Your task to perform on an android device: clear history in the chrome app Image 0: 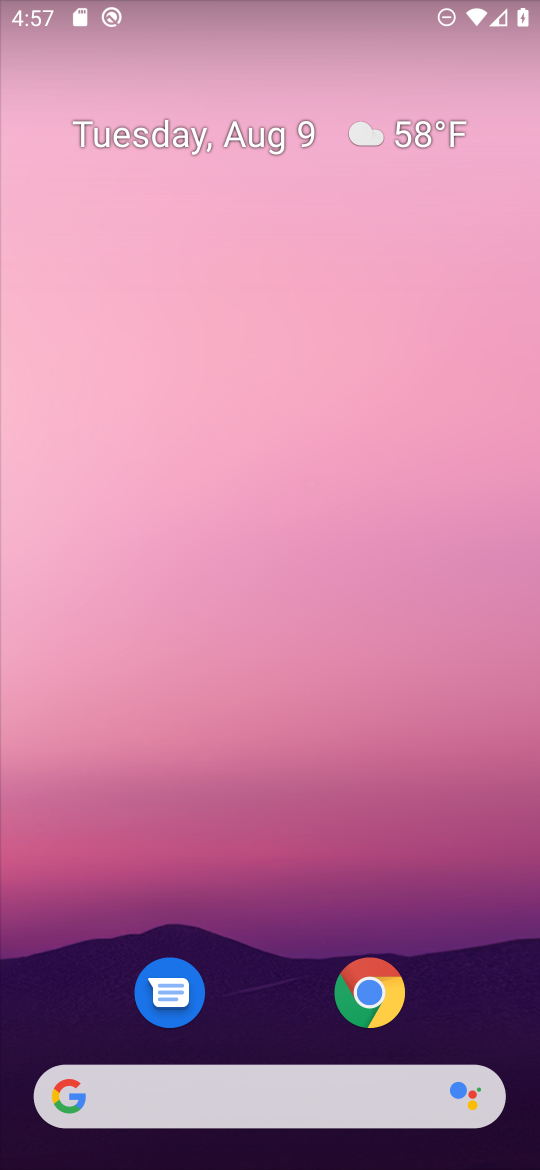
Step 0: drag from (406, 1088) to (259, 47)
Your task to perform on an android device: clear history in the chrome app Image 1: 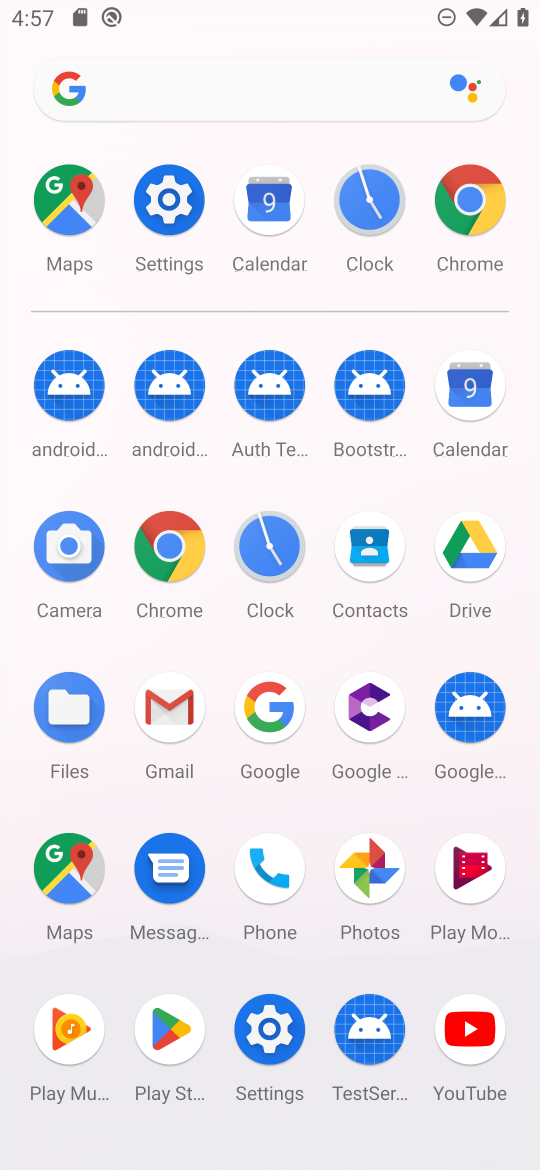
Step 1: click (166, 523)
Your task to perform on an android device: clear history in the chrome app Image 2: 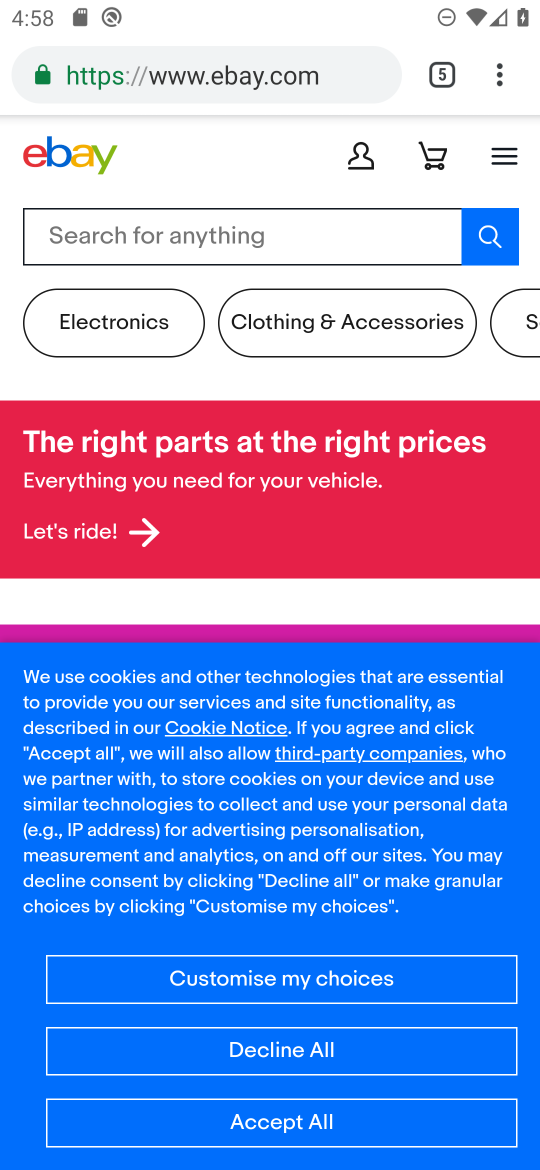
Step 2: click (506, 64)
Your task to perform on an android device: clear history in the chrome app Image 3: 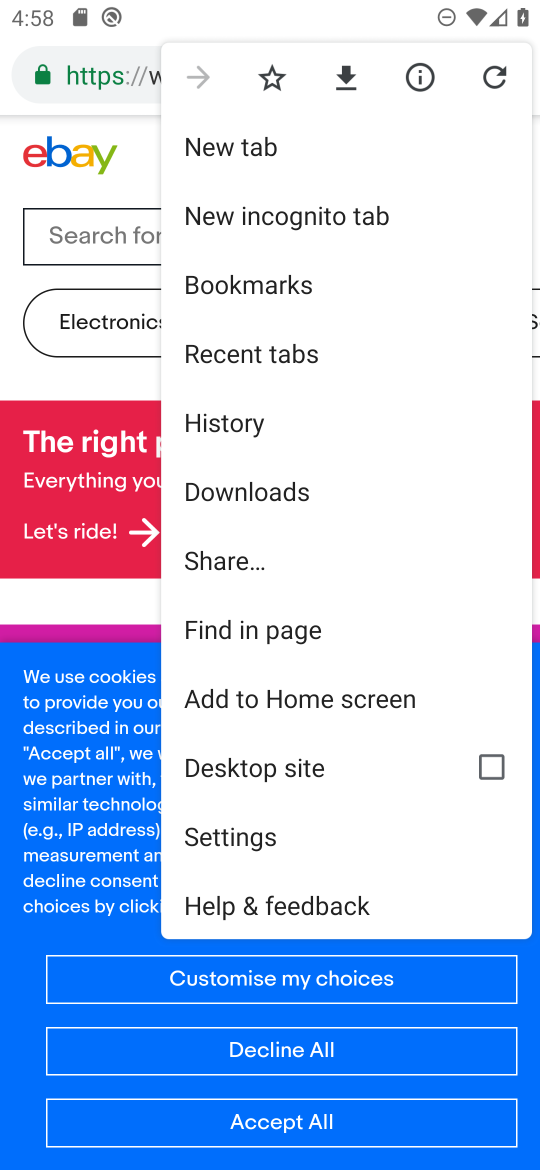
Step 3: click (231, 409)
Your task to perform on an android device: clear history in the chrome app Image 4: 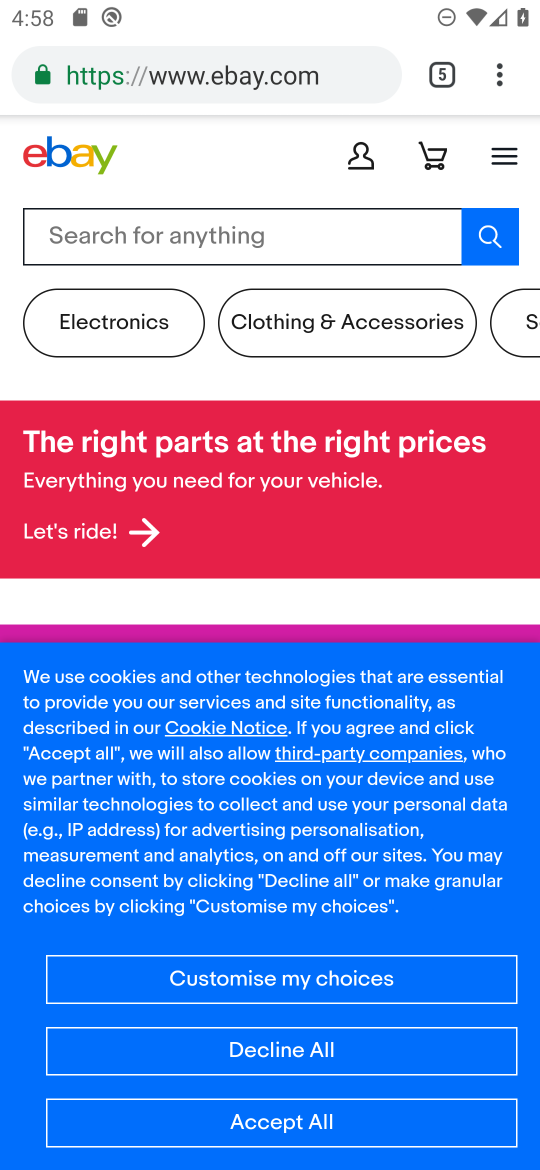
Step 4: click (231, 409)
Your task to perform on an android device: clear history in the chrome app Image 5: 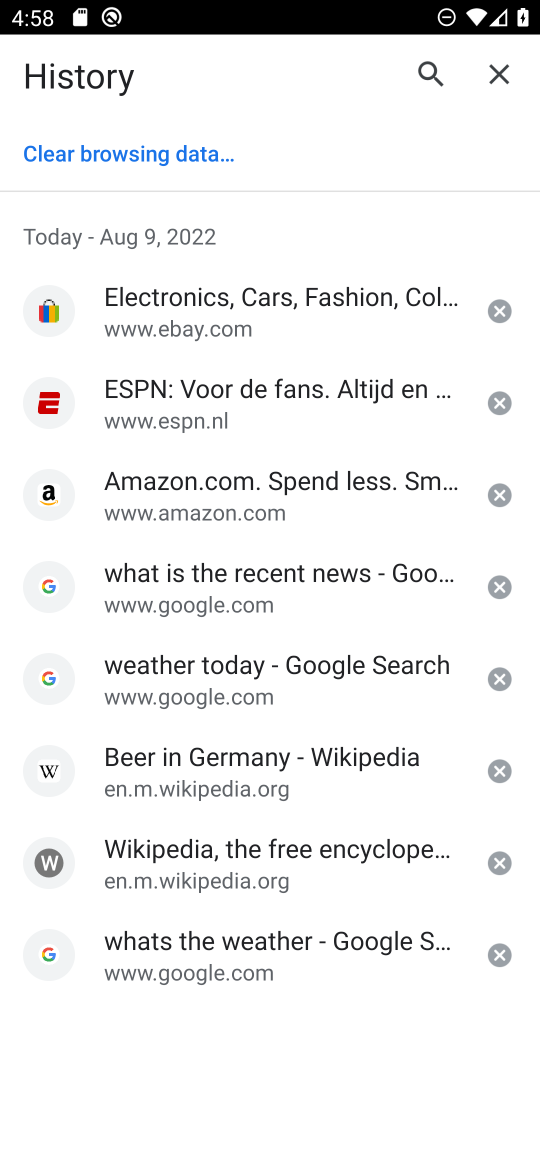
Step 5: click (215, 148)
Your task to perform on an android device: clear history in the chrome app Image 6: 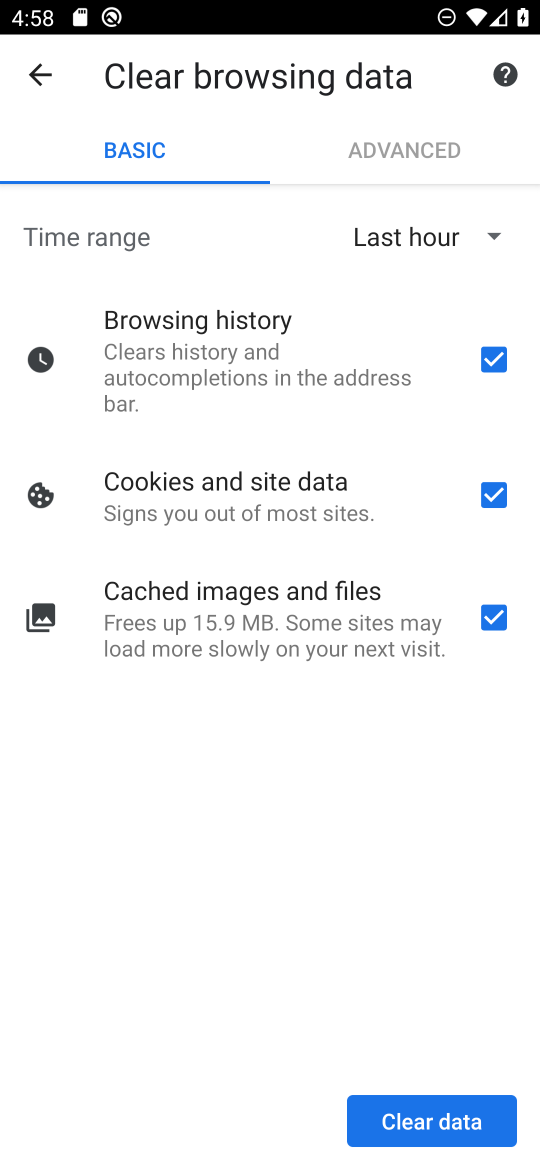
Step 6: click (471, 1114)
Your task to perform on an android device: clear history in the chrome app Image 7: 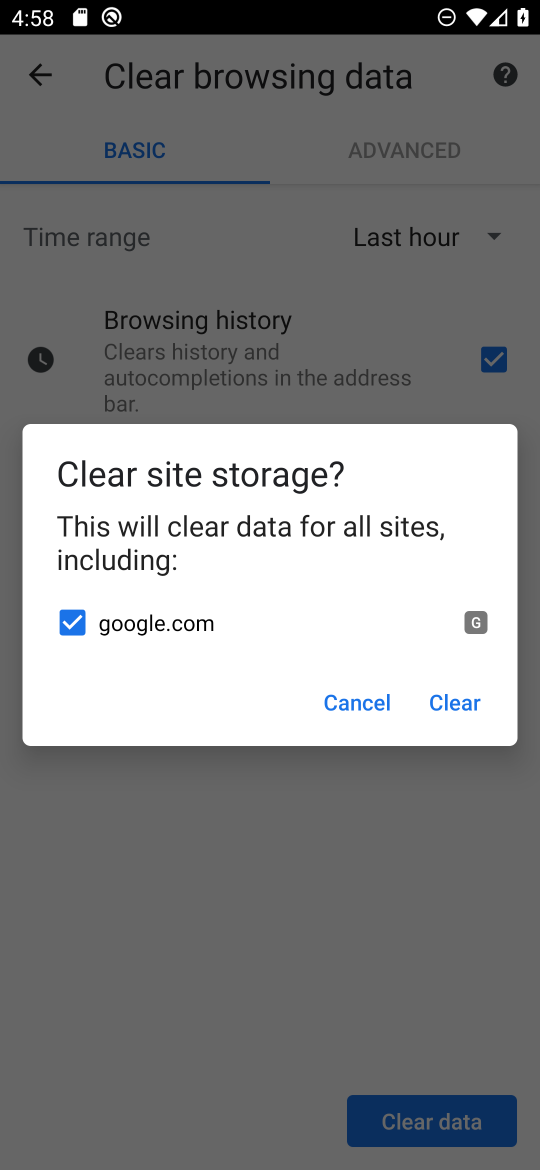
Step 7: click (455, 702)
Your task to perform on an android device: clear history in the chrome app Image 8: 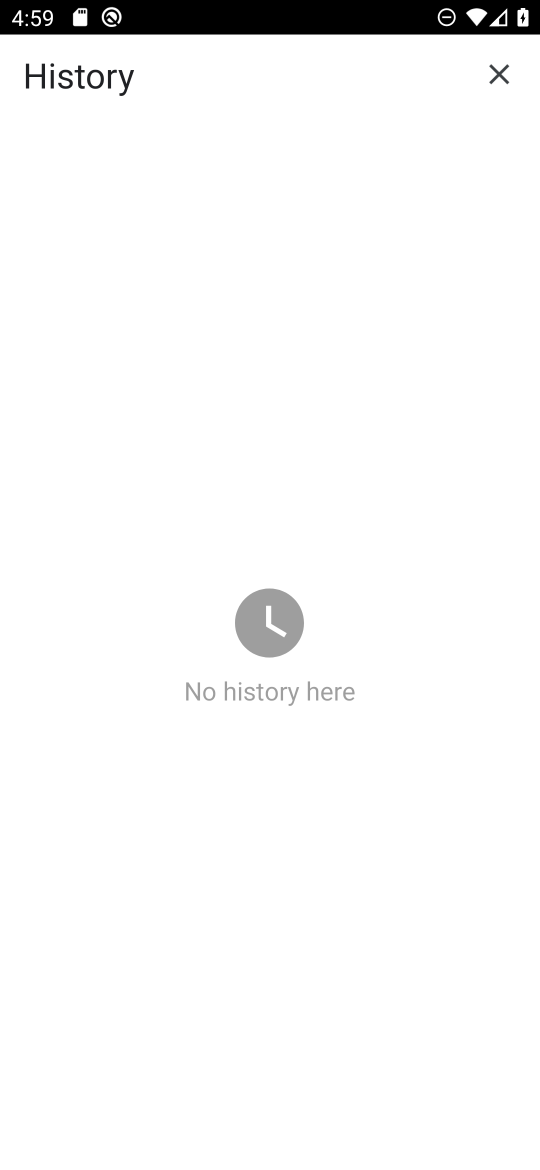
Step 8: press home button
Your task to perform on an android device: clear history in the chrome app Image 9: 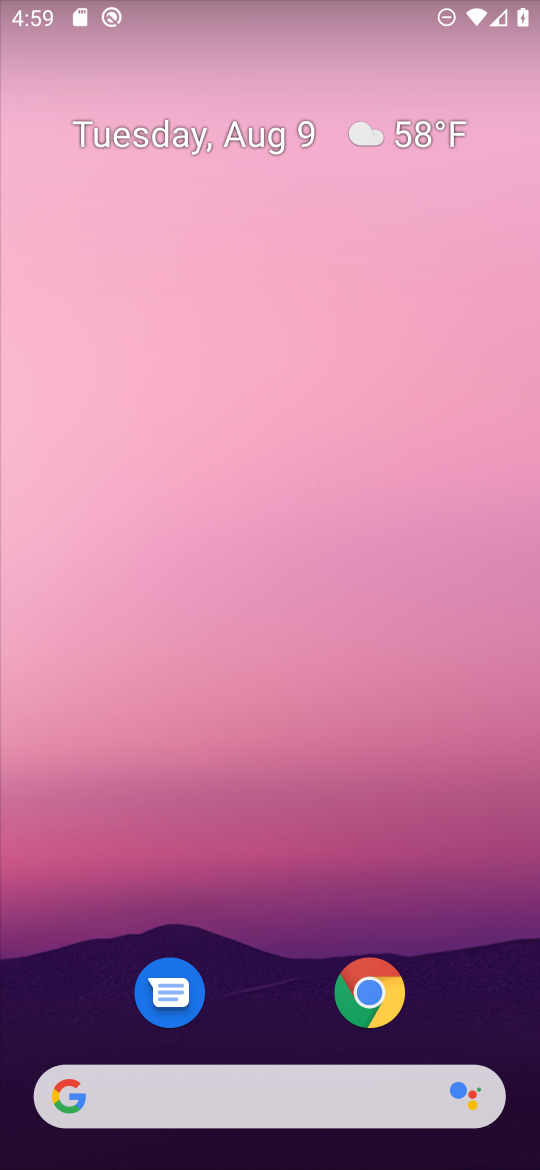
Step 9: drag from (245, 1074) to (313, 438)
Your task to perform on an android device: clear history in the chrome app Image 10: 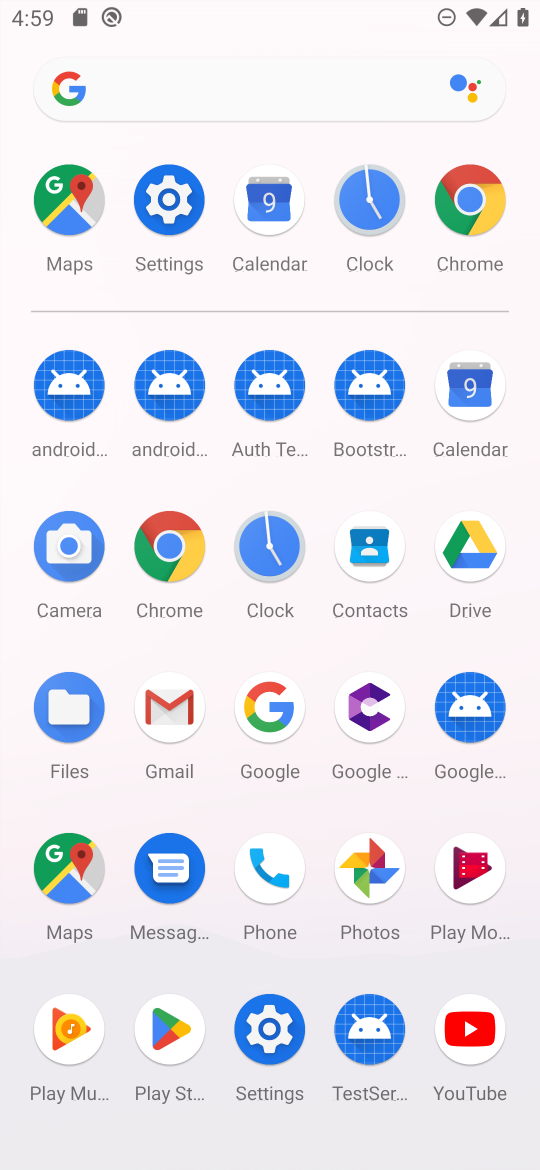
Step 10: click (157, 524)
Your task to perform on an android device: clear history in the chrome app Image 11: 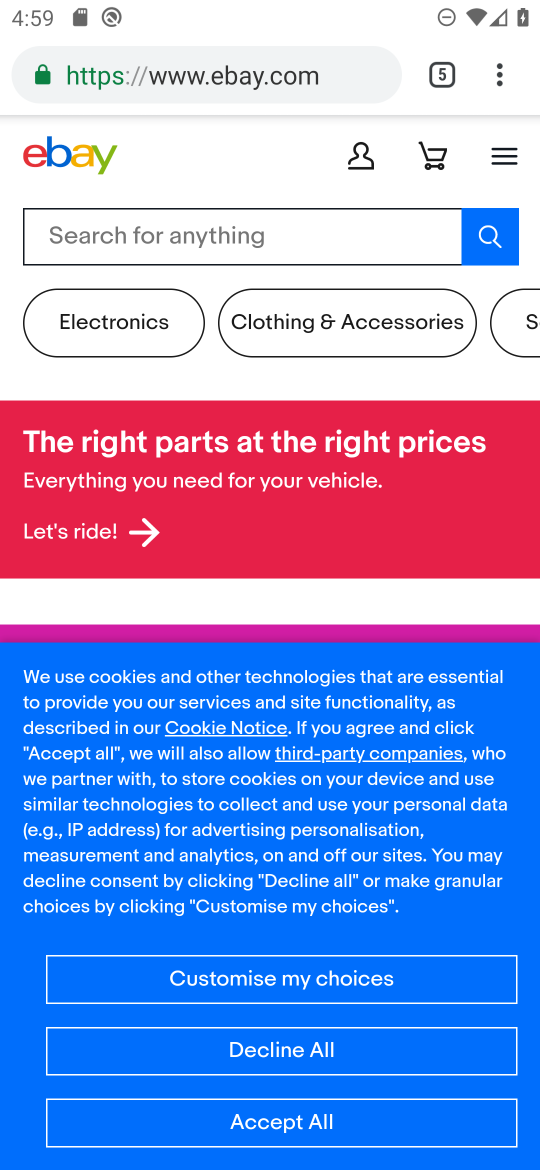
Step 11: click (492, 66)
Your task to perform on an android device: clear history in the chrome app Image 12: 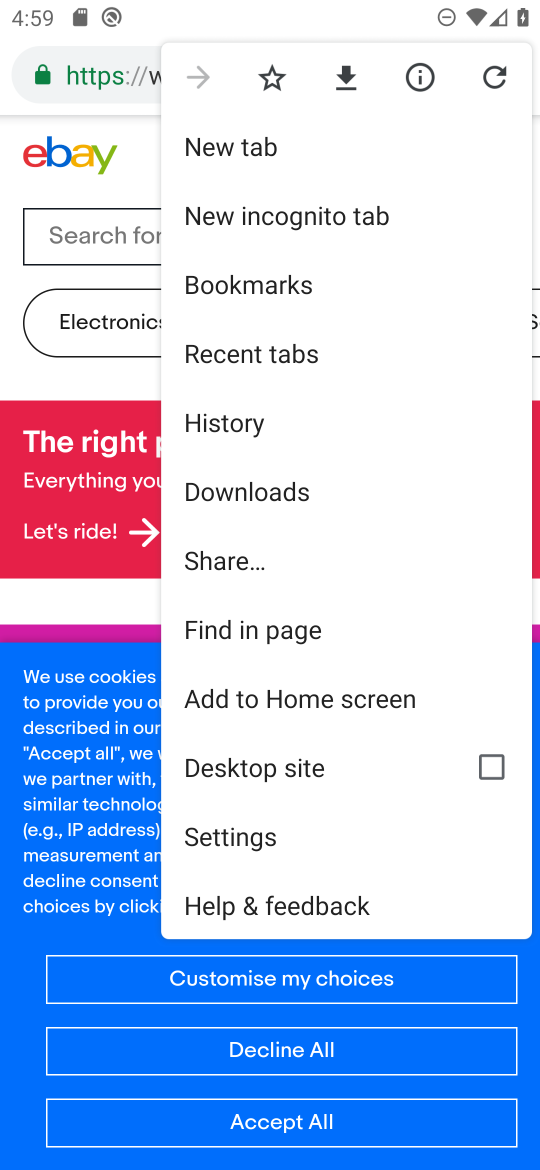
Step 12: click (251, 410)
Your task to perform on an android device: clear history in the chrome app Image 13: 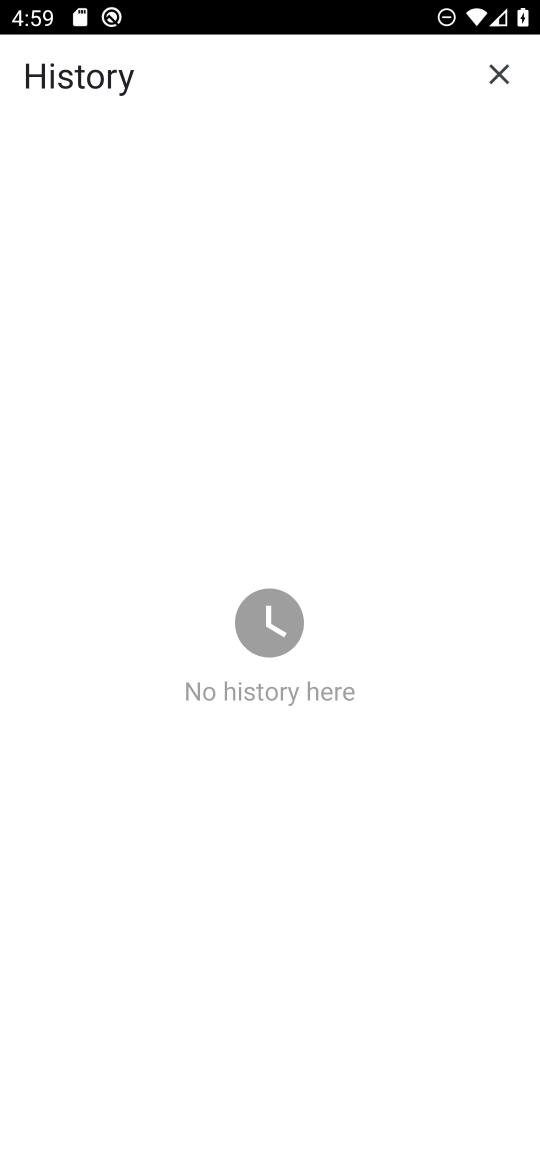
Step 13: task complete